Your task to perform on an android device: What's on my calendar today? Image 0: 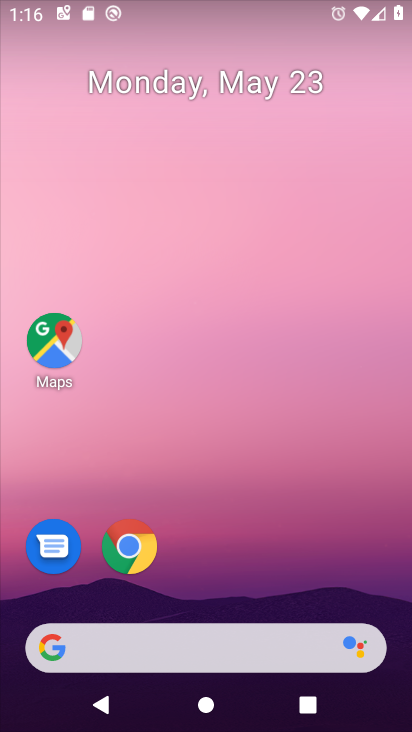
Step 0: drag from (261, 603) to (252, 210)
Your task to perform on an android device: What's on my calendar today? Image 1: 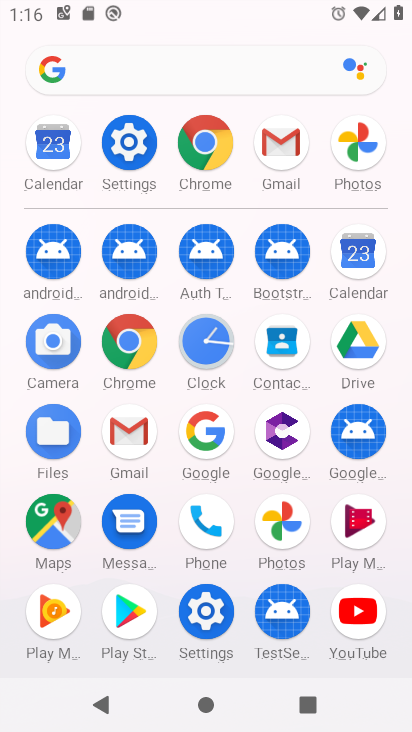
Step 1: click (345, 274)
Your task to perform on an android device: What's on my calendar today? Image 2: 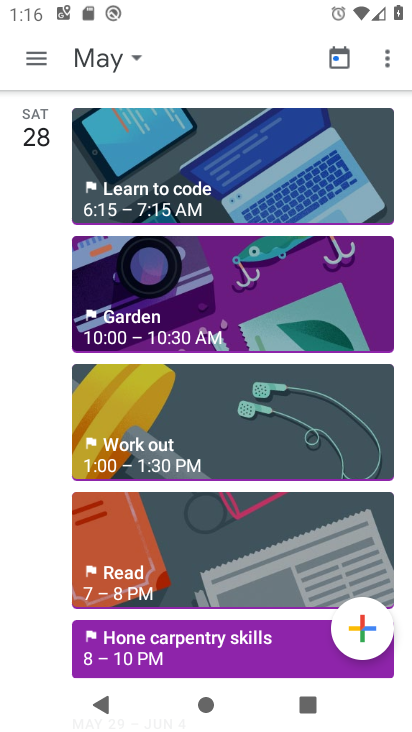
Step 2: click (102, 58)
Your task to perform on an android device: What's on my calendar today? Image 3: 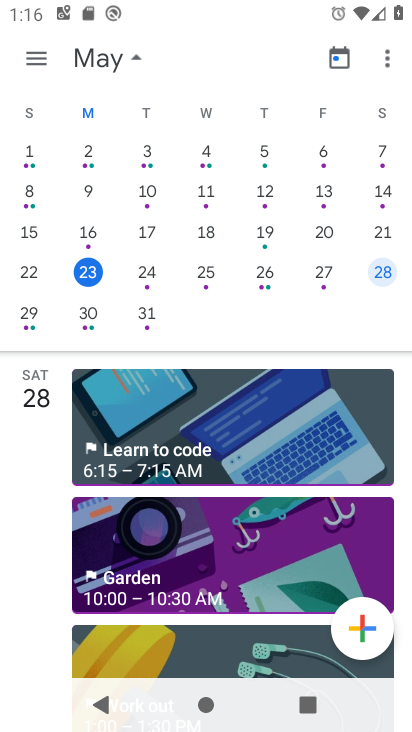
Step 3: click (91, 270)
Your task to perform on an android device: What's on my calendar today? Image 4: 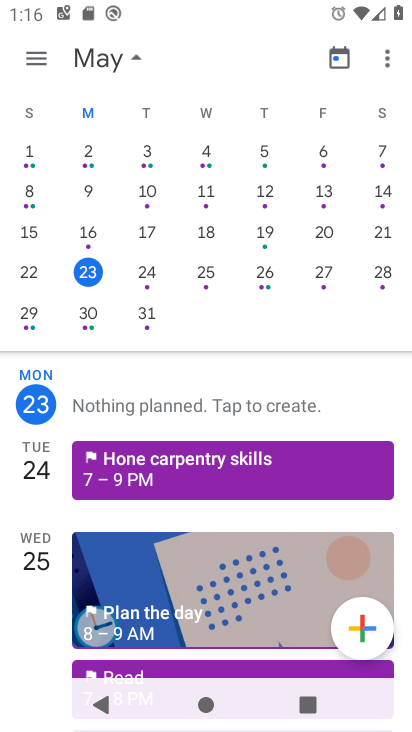
Step 4: task complete